Your task to perform on an android device: change notification settings in the gmail app Image 0: 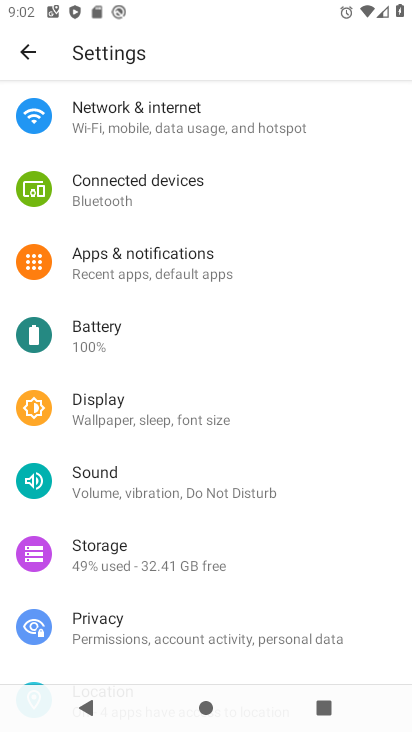
Step 0: press home button
Your task to perform on an android device: change notification settings in the gmail app Image 1: 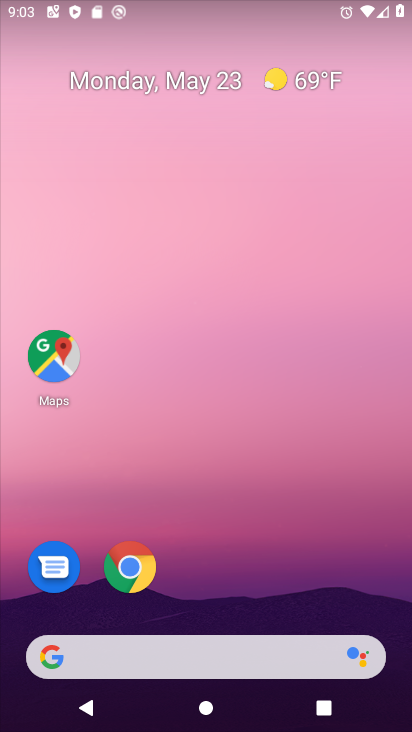
Step 1: drag from (230, 574) to (278, 111)
Your task to perform on an android device: change notification settings in the gmail app Image 2: 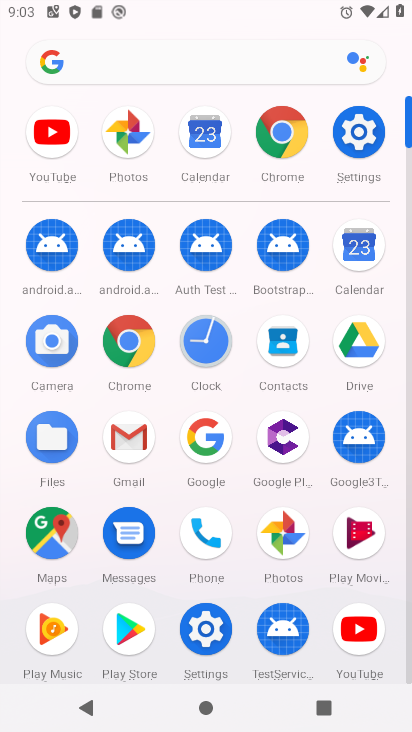
Step 2: click (372, 148)
Your task to perform on an android device: change notification settings in the gmail app Image 3: 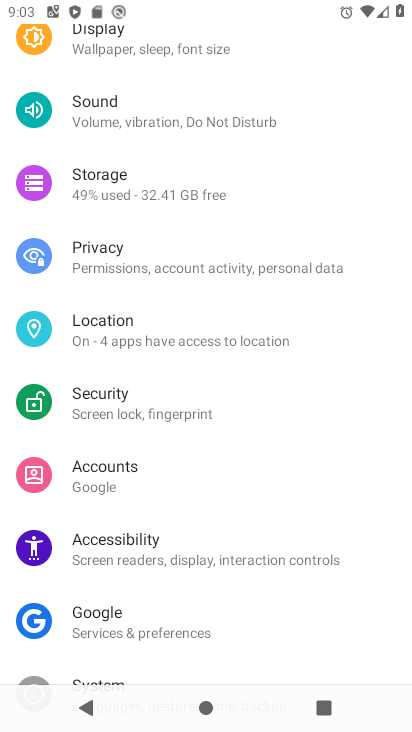
Step 3: drag from (181, 195) to (132, 555)
Your task to perform on an android device: change notification settings in the gmail app Image 4: 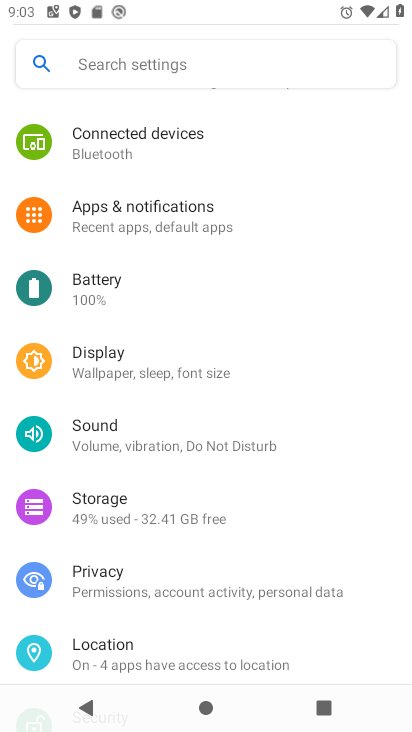
Step 4: click (178, 219)
Your task to perform on an android device: change notification settings in the gmail app Image 5: 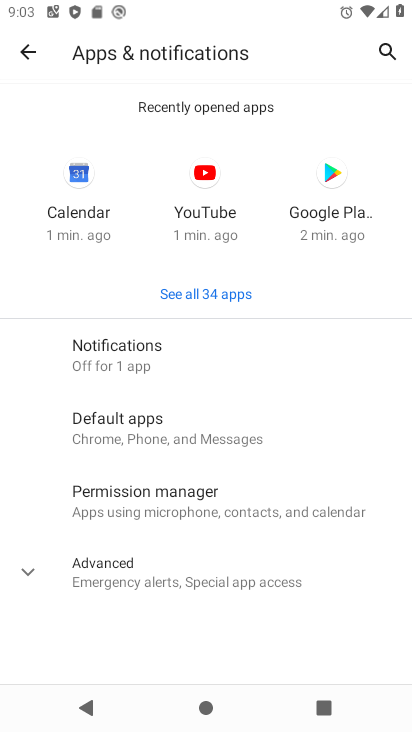
Step 5: click (155, 372)
Your task to perform on an android device: change notification settings in the gmail app Image 6: 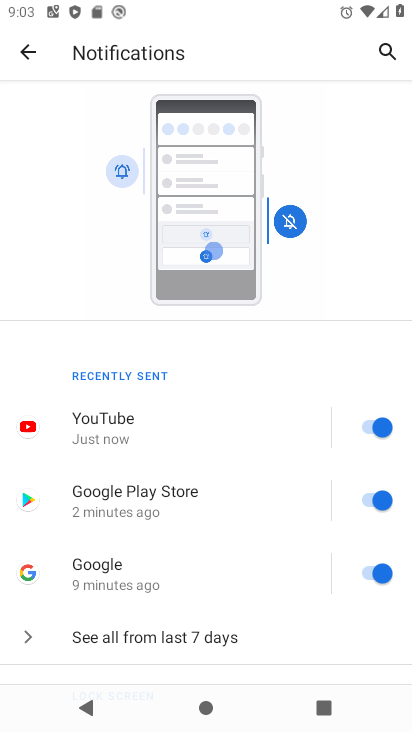
Step 6: drag from (213, 494) to (226, 281)
Your task to perform on an android device: change notification settings in the gmail app Image 7: 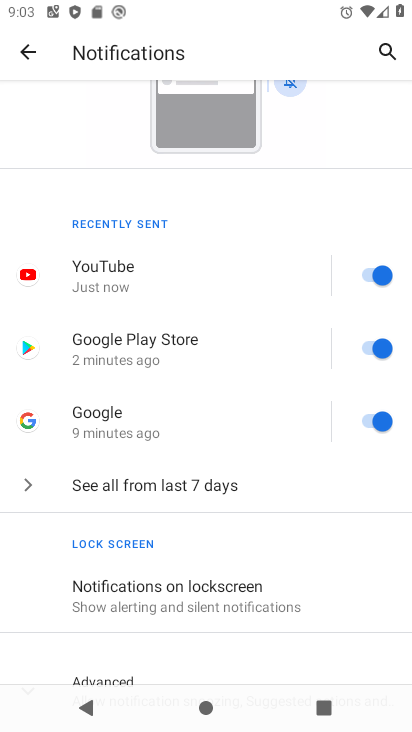
Step 7: click (176, 495)
Your task to perform on an android device: change notification settings in the gmail app Image 8: 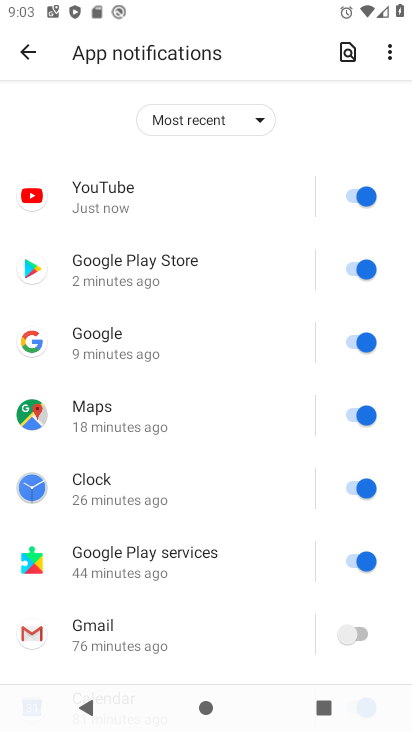
Step 8: click (355, 192)
Your task to perform on an android device: change notification settings in the gmail app Image 9: 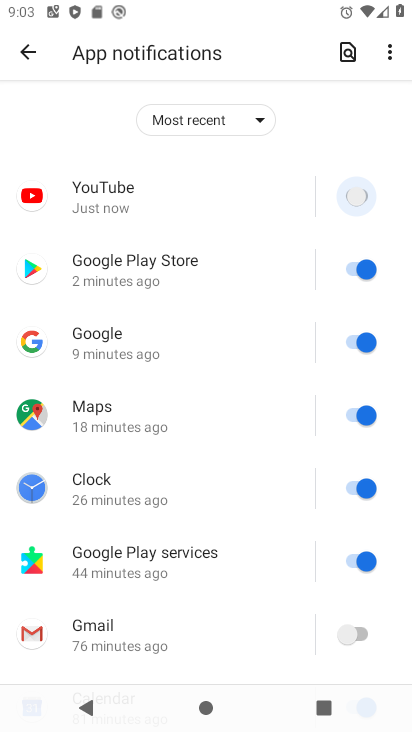
Step 9: click (341, 270)
Your task to perform on an android device: change notification settings in the gmail app Image 10: 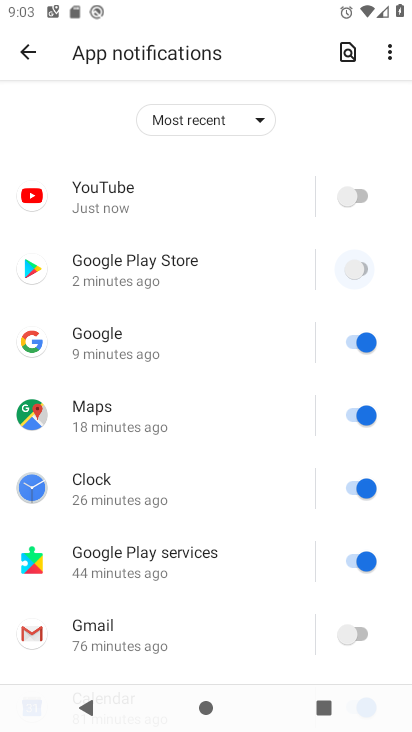
Step 10: click (345, 354)
Your task to perform on an android device: change notification settings in the gmail app Image 11: 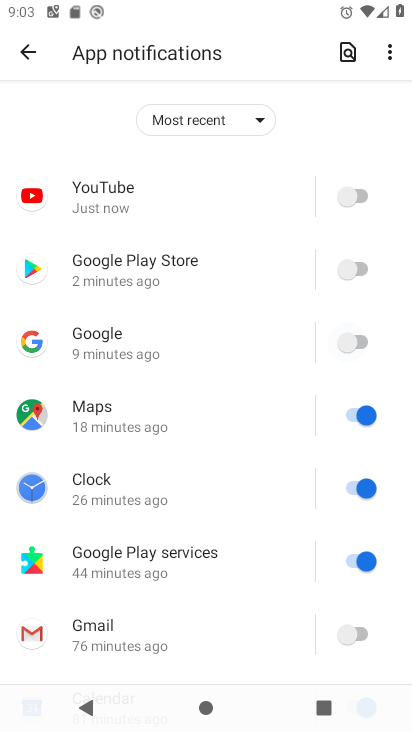
Step 11: click (337, 422)
Your task to perform on an android device: change notification settings in the gmail app Image 12: 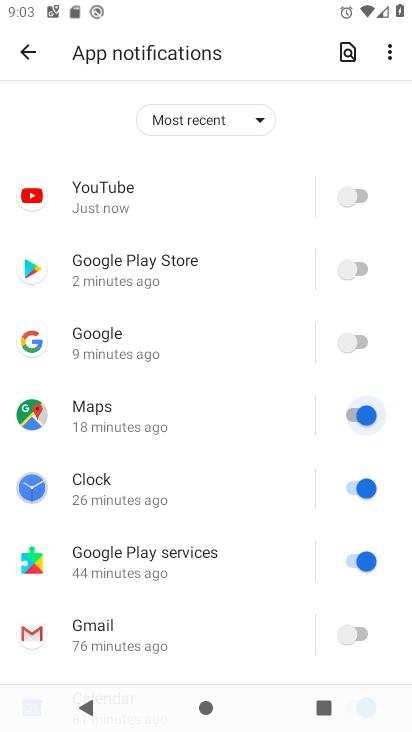
Step 12: click (338, 496)
Your task to perform on an android device: change notification settings in the gmail app Image 13: 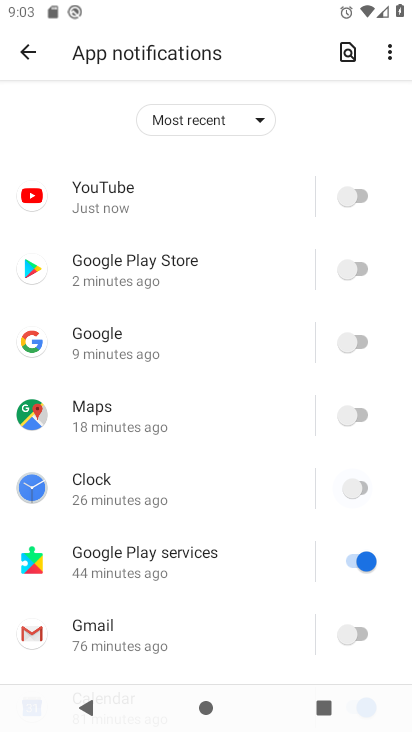
Step 13: click (338, 551)
Your task to perform on an android device: change notification settings in the gmail app Image 14: 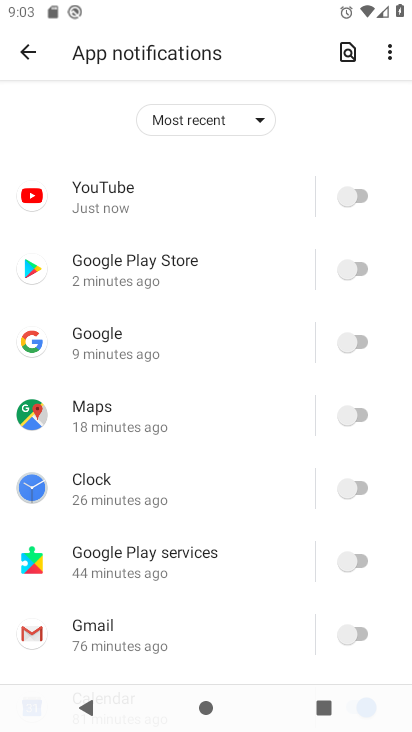
Step 14: drag from (269, 584) to (306, 167)
Your task to perform on an android device: change notification settings in the gmail app Image 15: 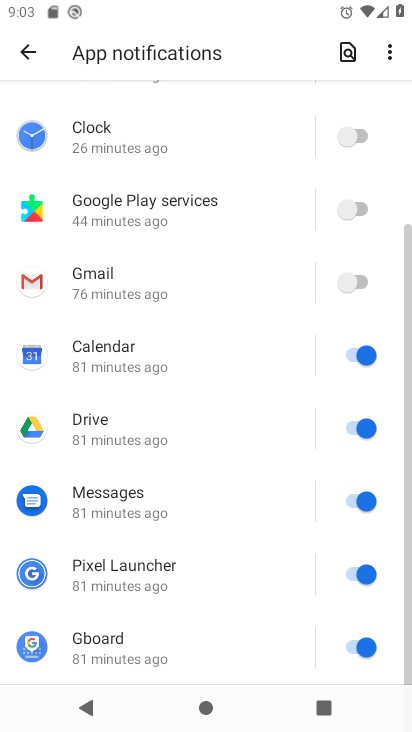
Step 15: click (362, 353)
Your task to perform on an android device: change notification settings in the gmail app Image 16: 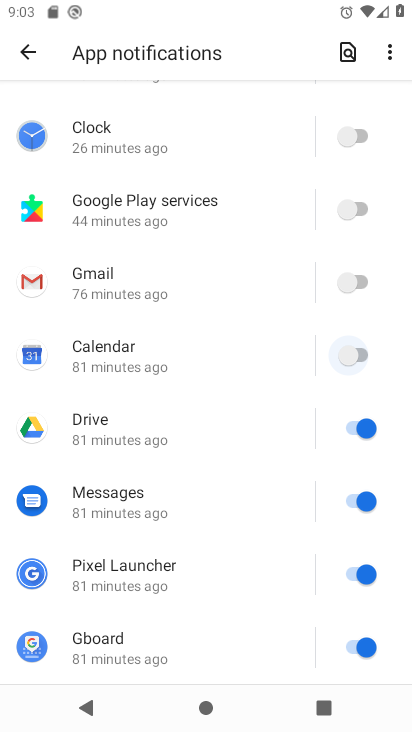
Step 16: click (354, 434)
Your task to perform on an android device: change notification settings in the gmail app Image 17: 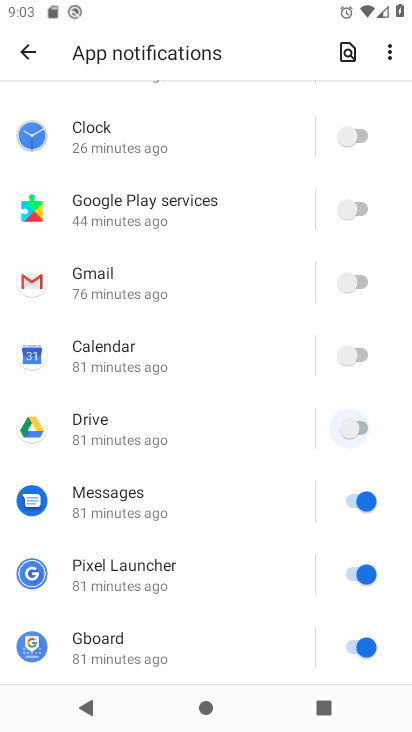
Step 17: click (355, 446)
Your task to perform on an android device: change notification settings in the gmail app Image 18: 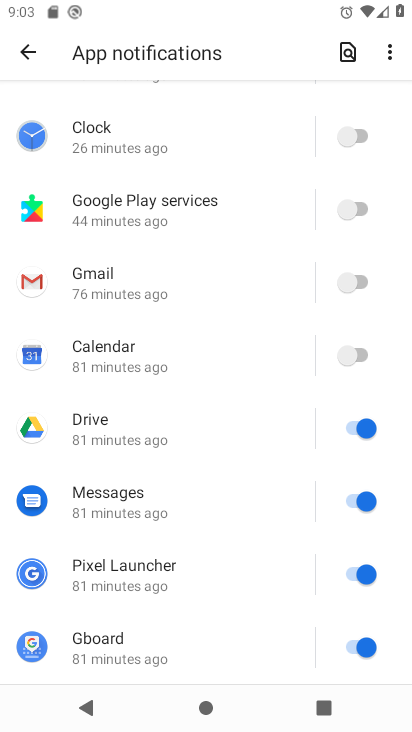
Step 18: click (363, 512)
Your task to perform on an android device: change notification settings in the gmail app Image 19: 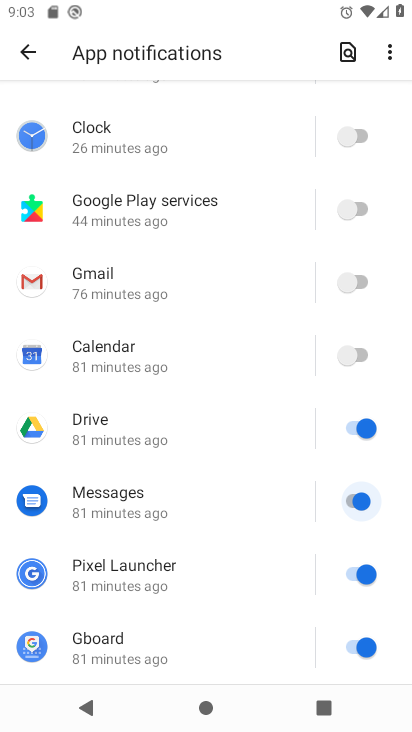
Step 19: click (359, 572)
Your task to perform on an android device: change notification settings in the gmail app Image 20: 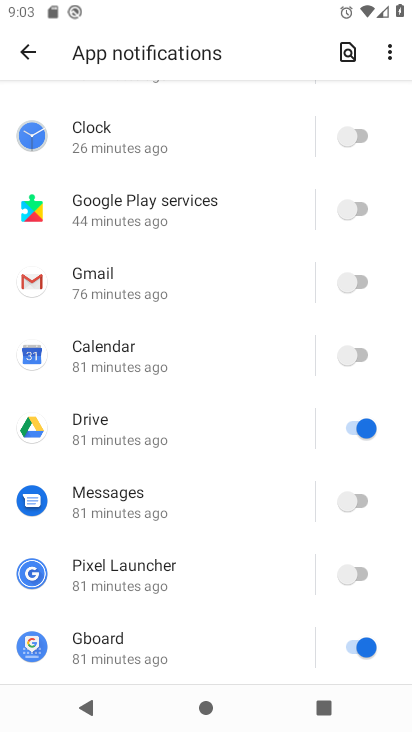
Step 20: click (346, 644)
Your task to perform on an android device: change notification settings in the gmail app Image 21: 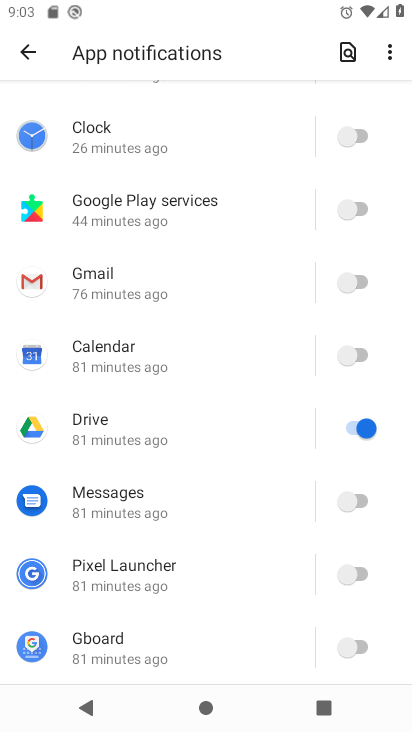
Step 21: click (341, 418)
Your task to perform on an android device: change notification settings in the gmail app Image 22: 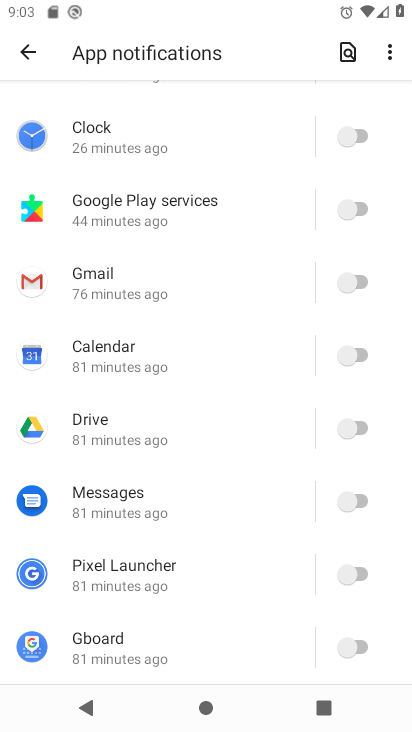
Step 22: task complete